Your task to perform on an android device: Set the phone to "Do not disturb". Image 0: 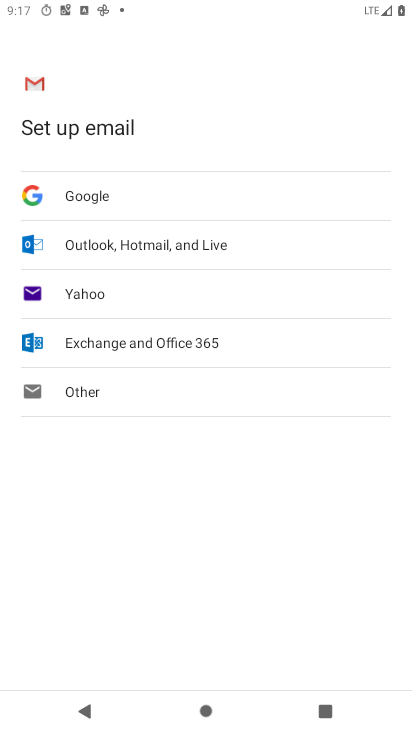
Step 0: press home button
Your task to perform on an android device: Set the phone to "Do not disturb". Image 1: 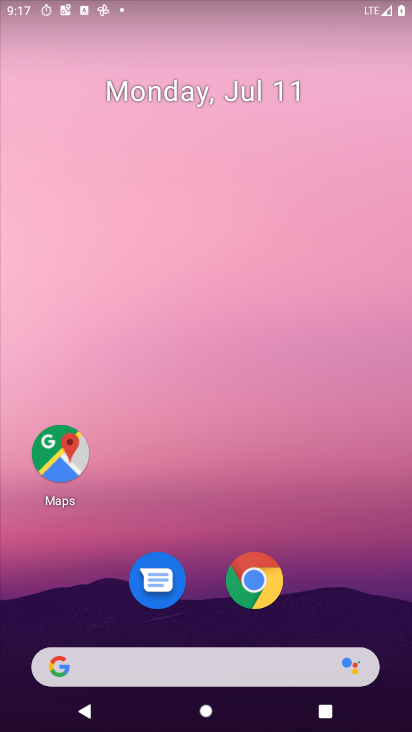
Step 1: drag from (337, 496) to (339, 46)
Your task to perform on an android device: Set the phone to "Do not disturb". Image 2: 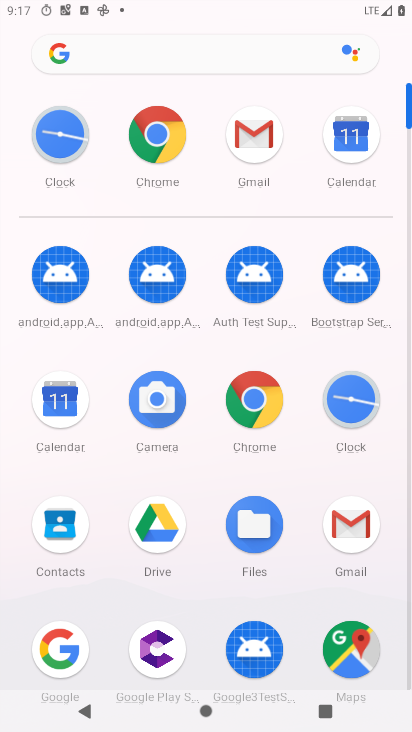
Step 2: drag from (202, 406) to (232, 98)
Your task to perform on an android device: Set the phone to "Do not disturb". Image 3: 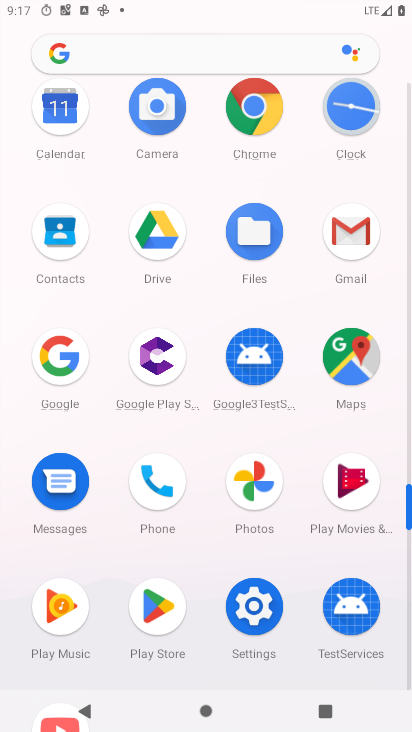
Step 3: click (263, 592)
Your task to perform on an android device: Set the phone to "Do not disturb". Image 4: 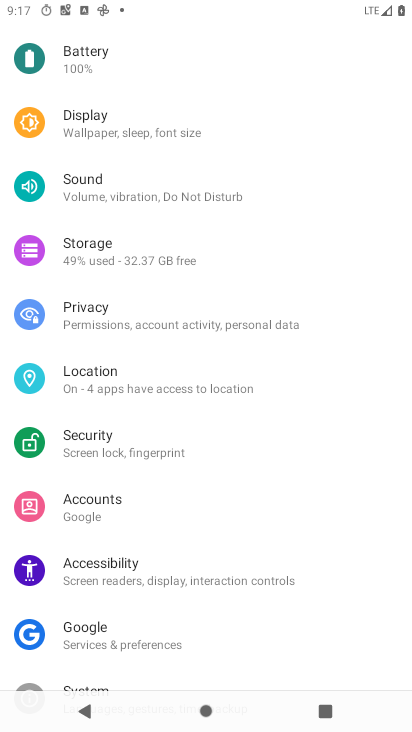
Step 4: click (202, 182)
Your task to perform on an android device: Set the phone to "Do not disturb". Image 5: 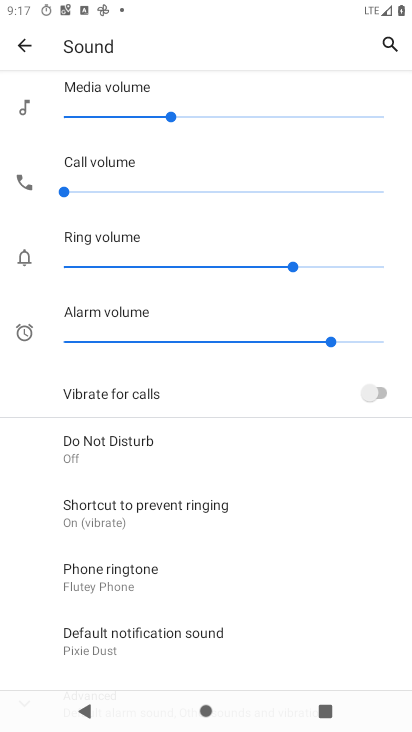
Step 5: click (87, 448)
Your task to perform on an android device: Set the phone to "Do not disturb". Image 6: 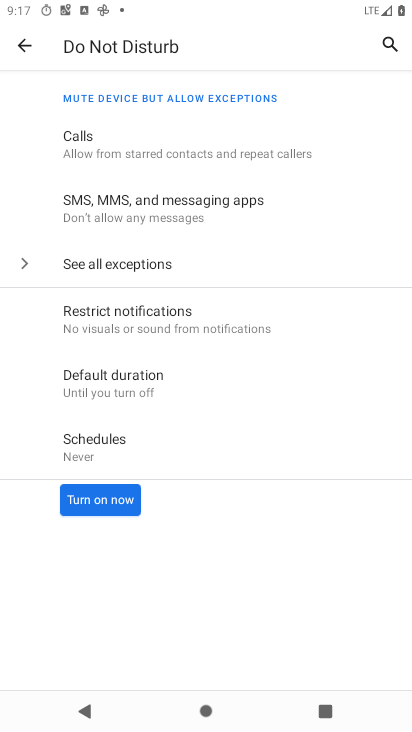
Step 6: click (98, 499)
Your task to perform on an android device: Set the phone to "Do not disturb". Image 7: 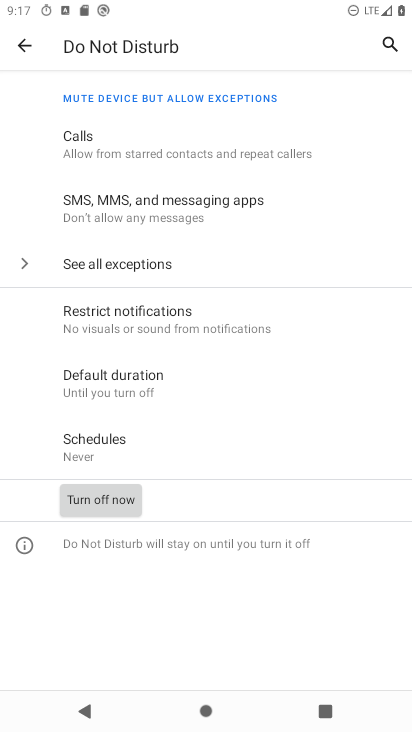
Step 7: task complete